Your task to perform on an android device: Go to Amazon Image 0: 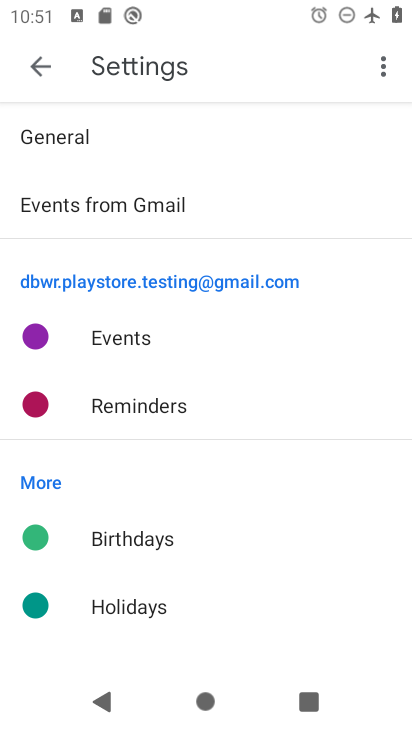
Step 0: press home button
Your task to perform on an android device: Go to Amazon Image 1: 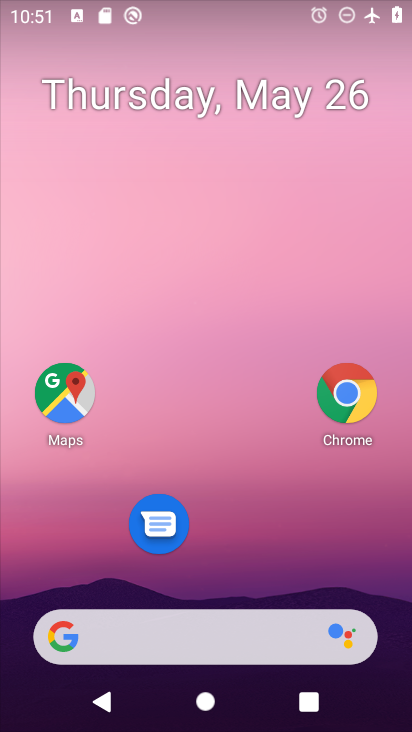
Step 1: click (353, 397)
Your task to perform on an android device: Go to Amazon Image 2: 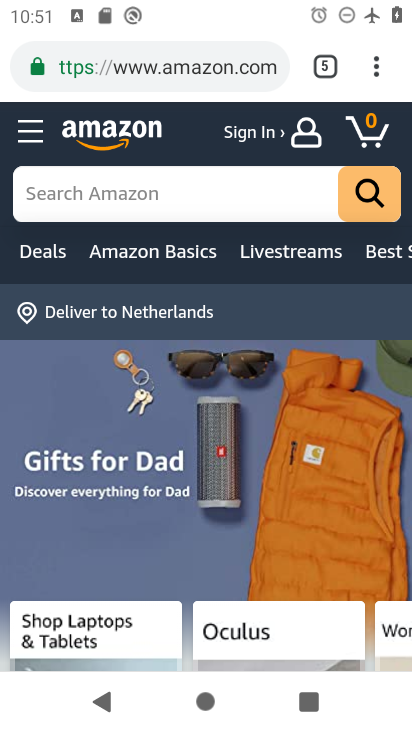
Step 2: task complete